Your task to perform on an android device: Go to settings Image 0: 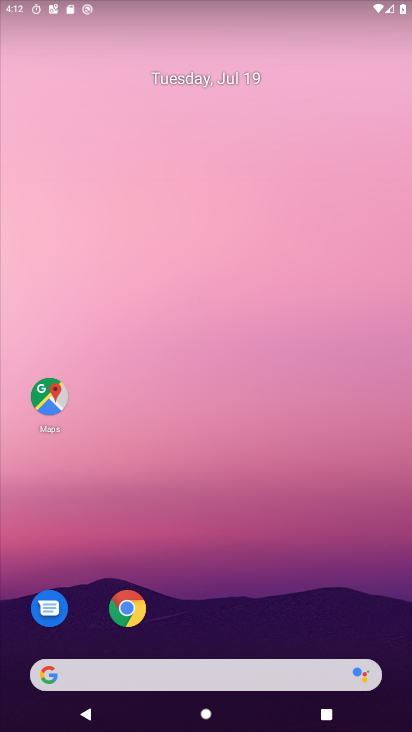
Step 0: drag from (219, 681) to (200, 61)
Your task to perform on an android device: Go to settings Image 1: 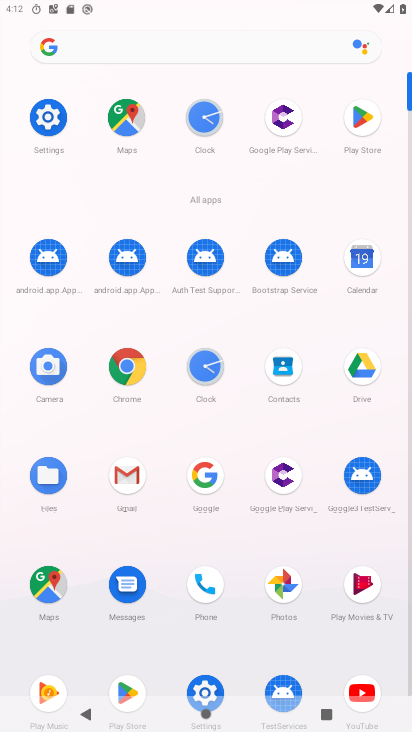
Step 1: click (49, 116)
Your task to perform on an android device: Go to settings Image 2: 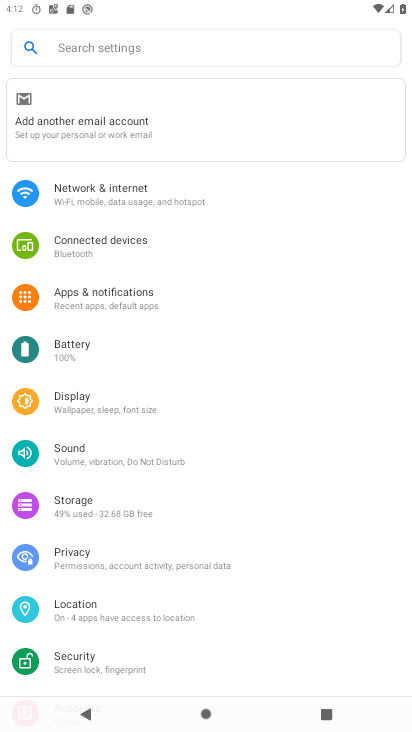
Step 2: task complete